Your task to perform on an android device: see creations saved in the google photos Image 0: 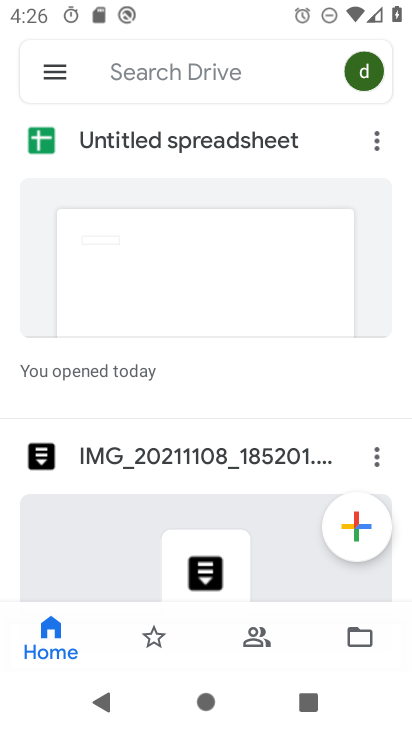
Step 0: press home button
Your task to perform on an android device: see creations saved in the google photos Image 1: 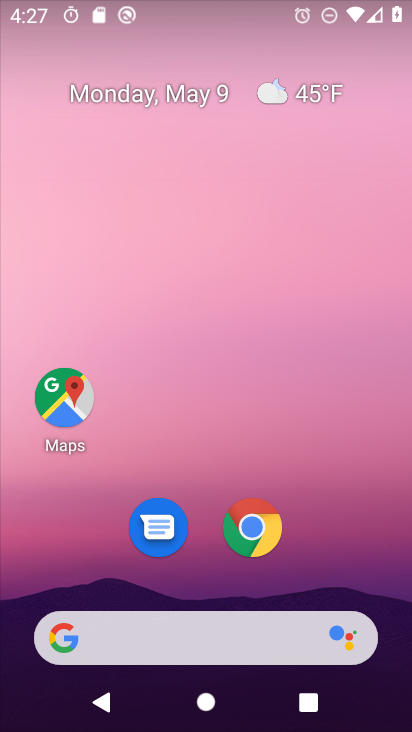
Step 1: drag from (347, 567) to (253, 66)
Your task to perform on an android device: see creations saved in the google photos Image 2: 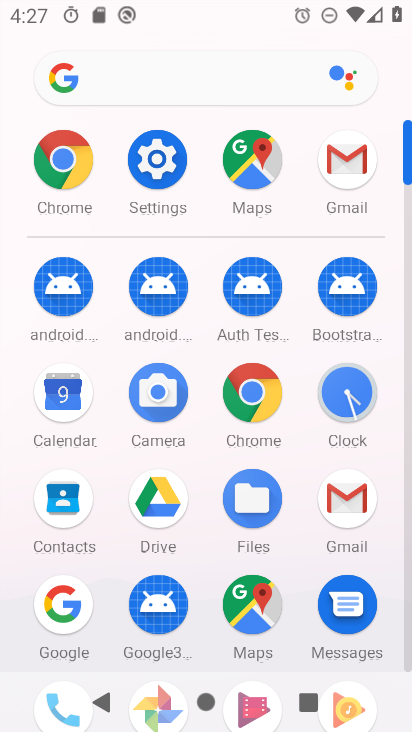
Step 2: click (407, 650)
Your task to perform on an android device: see creations saved in the google photos Image 3: 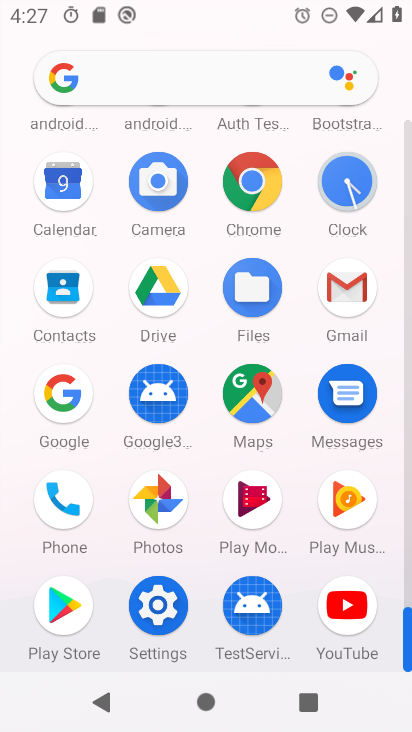
Step 3: click (167, 509)
Your task to perform on an android device: see creations saved in the google photos Image 4: 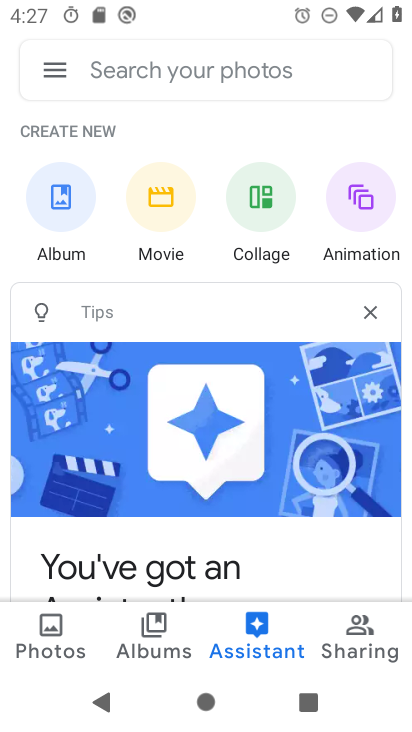
Step 4: click (156, 62)
Your task to perform on an android device: see creations saved in the google photos Image 5: 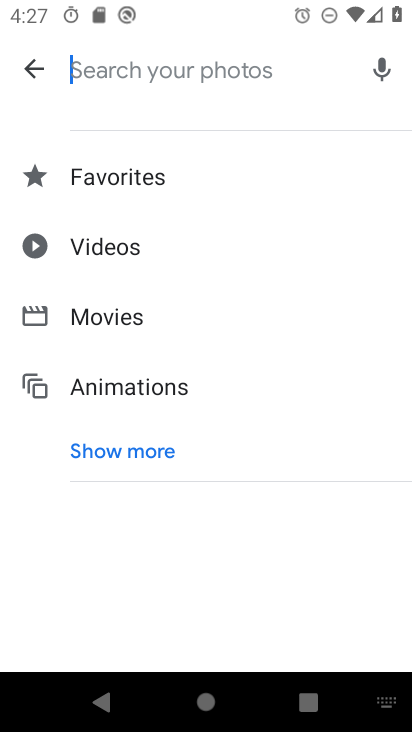
Step 5: click (132, 455)
Your task to perform on an android device: see creations saved in the google photos Image 6: 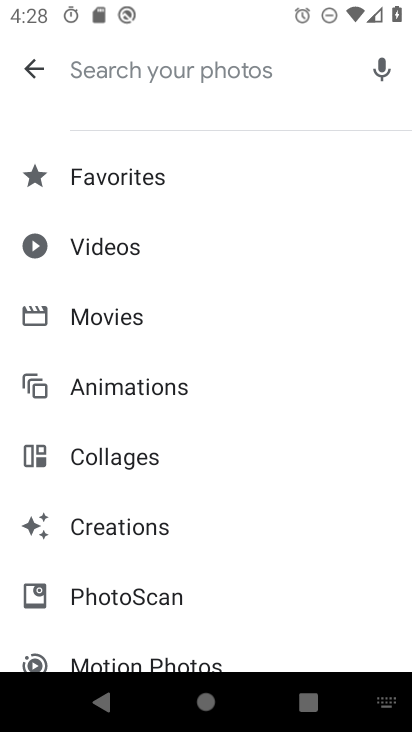
Step 6: click (147, 526)
Your task to perform on an android device: see creations saved in the google photos Image 7: 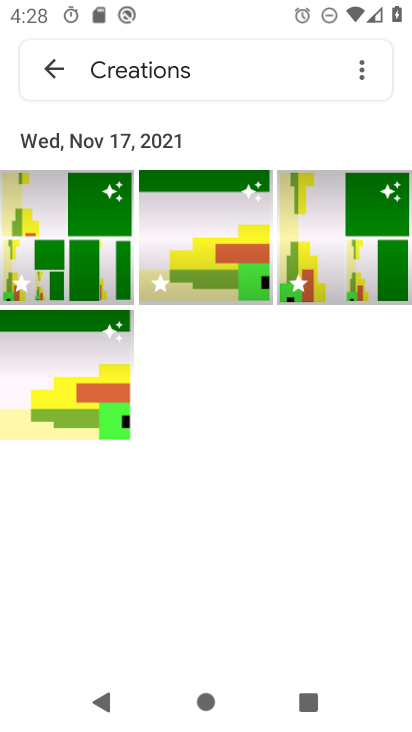
Step 7: task complete